Your task to perform on an android device: turn pop-ups on in chrome Image 0: 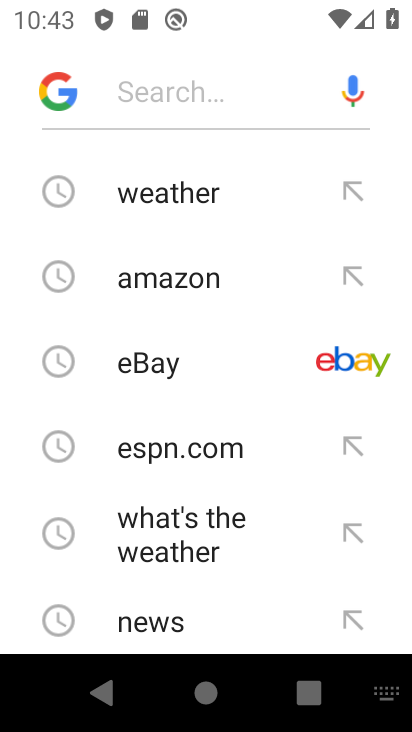
Step 0: press back button
Your task to perform on an android device: turn pop-ups on in chrome Image 1: 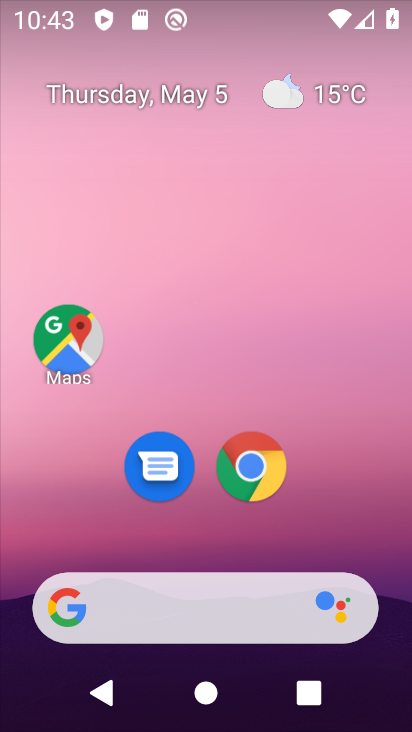
Step 1: click (262, 467)
Your task to perform on an android device: turn pop-ups on in chrome Image 2: 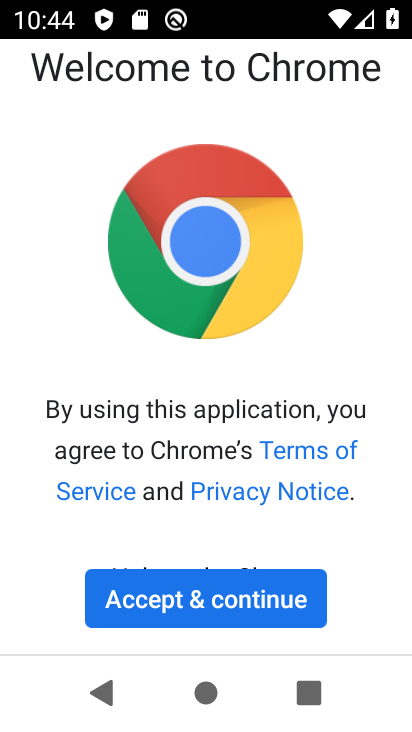
Step 2: click (267, 591)
Your task to perform on an android device: turn pop-ups on in chrome Image 3: 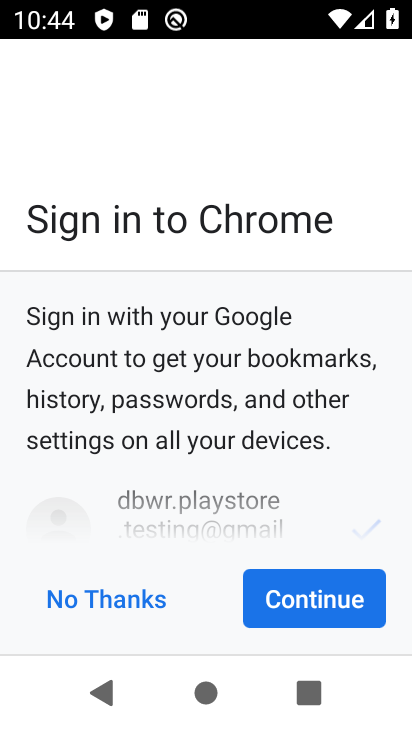
Step 3: click (266, 592)
Your task to perform on an android device: turn pop-ups on in chrome Image 4: 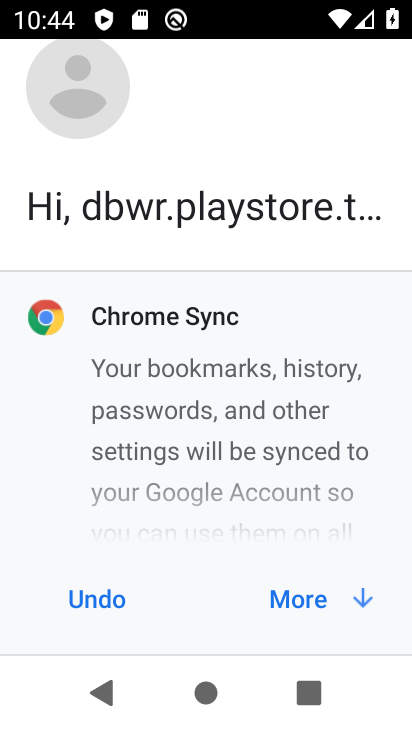
Step 4: click (285, 591)
Your task to perform on an android device: turn pop-ups on in chrome Image 5: 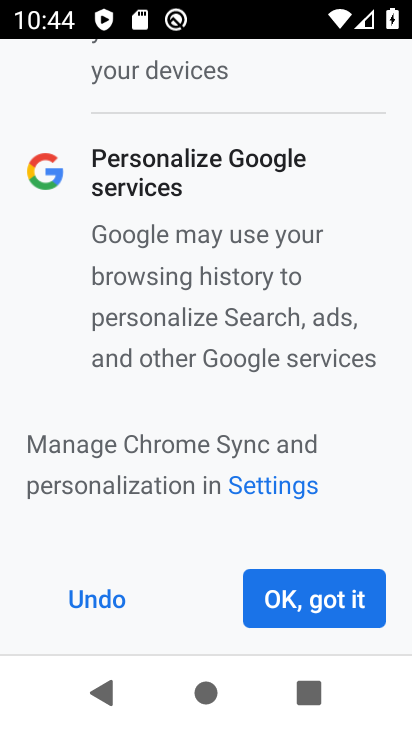
Step 5: click (325, 596)
Your task to perform on an android device: turn pop-ups on in chrome Image 6: 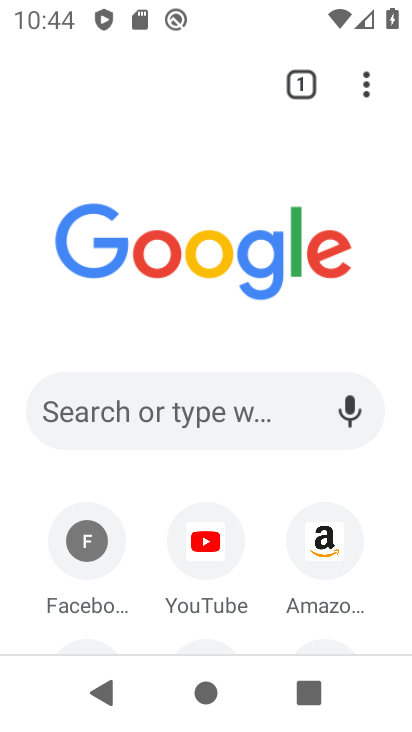
Step 6: drag from (256, 444) to (306, 302)
Your task to perform on an android device: turn pop-ups on in chrome Image 7: 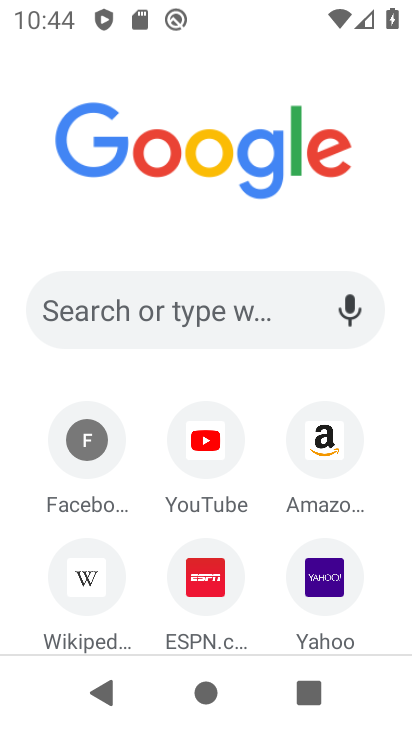
Step 7: drag from (349, 74) to (339, 210)
Your task to perform on an android device: turn pop-ups on in chrome Image 8: 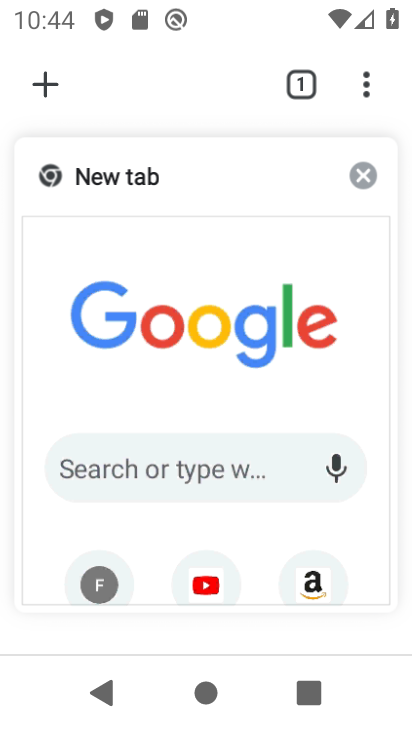
Step 8: click (326, 209)
Your task to perform on an android device: turn pop-ups on in chrome Image 9: 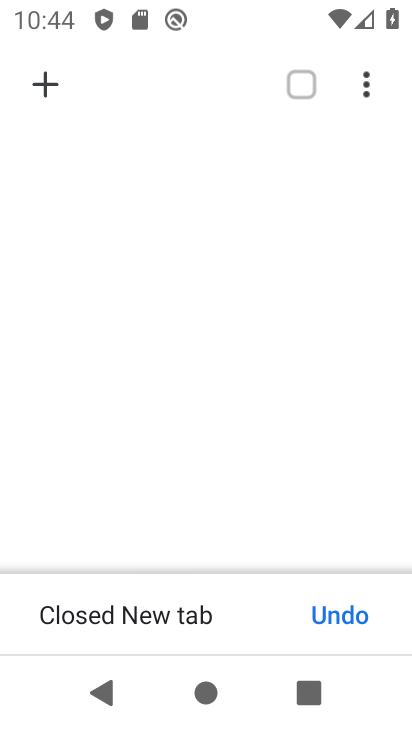
Step 9: click (359, 95)
Your task to perform on an android device: turn pop-ups on in chrome Image 10: 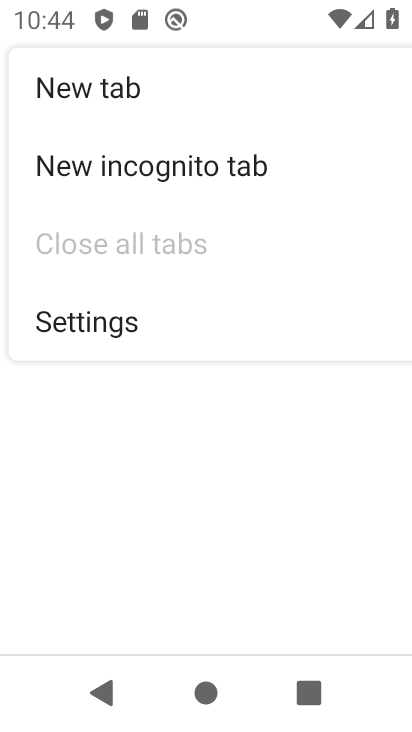
Step 10: click (122, 312)
Your task to perform on an android device: turn pop-ups on in chrome Image 11: 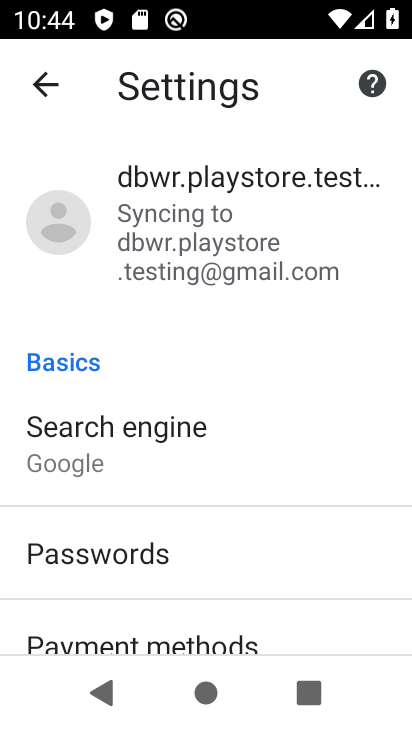
Step 11: drag from (144, 555) to (192, 143)
Your task to perform on an android device: turn pop-ups on in chrome Image 12: 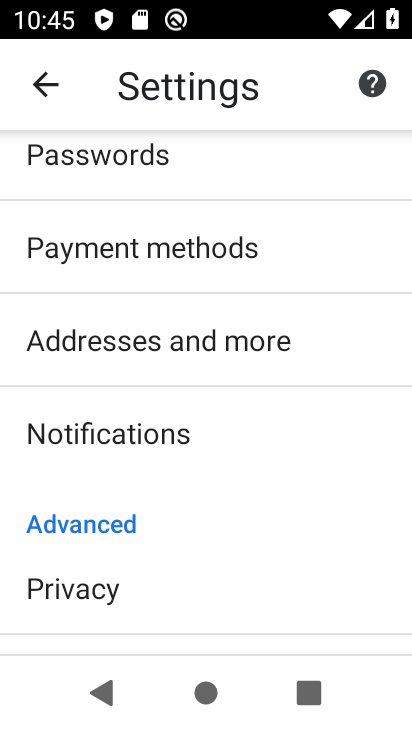
Step 12: drag from (198, 510) to (171, 215)
Your task to perform on an android device: turn pop-ups on in chrome Image 13: 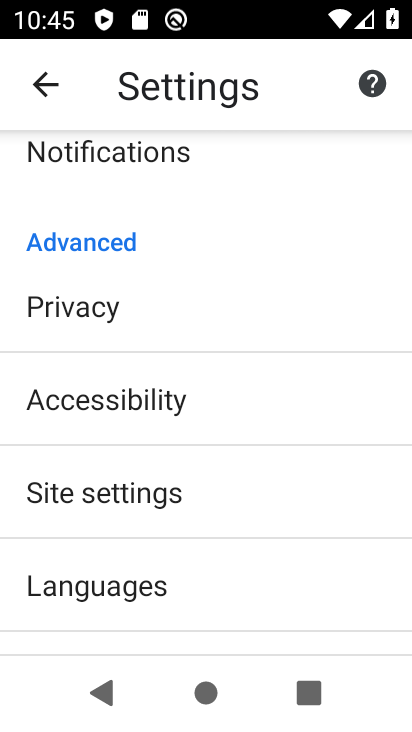
Step 13: click (149, 491)
Your task to perform on an android device: turn pop-ups on in chrome Image 14: 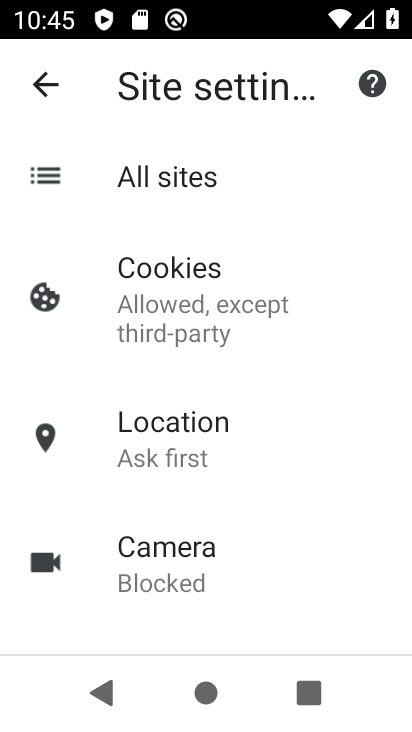
Step 14: drag from (216, 527) to (223, 90)
Your task to perform on an android device: turn pop-ups on in chrome Image 15: 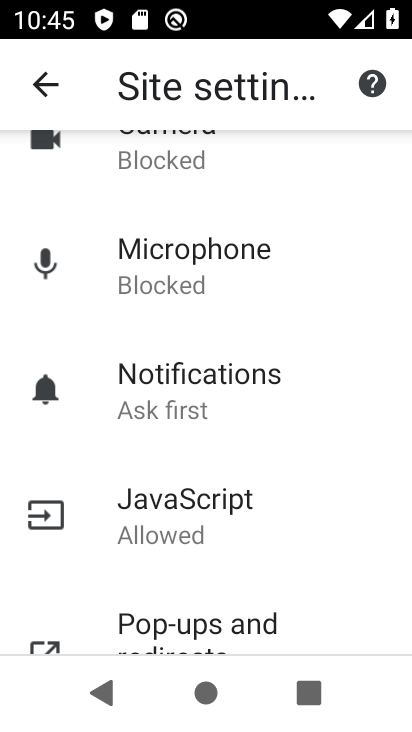
Step 15: click (190, 628)
Your task to perform on an android device: turn pop-ups on in chrome Image 16: 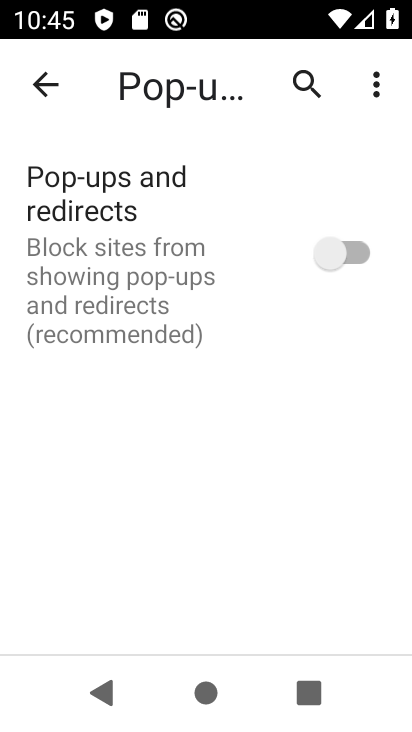
Step 16: click (323, 258)
Your task to perform on an android device: turn pop-ups on in chrome Image 17: 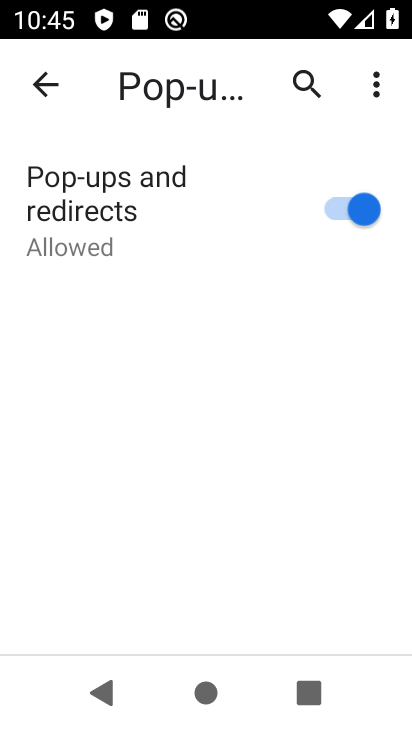
Step 17: task complete